Your task to perform on an android device: Go to Yahoo.com Image 0: 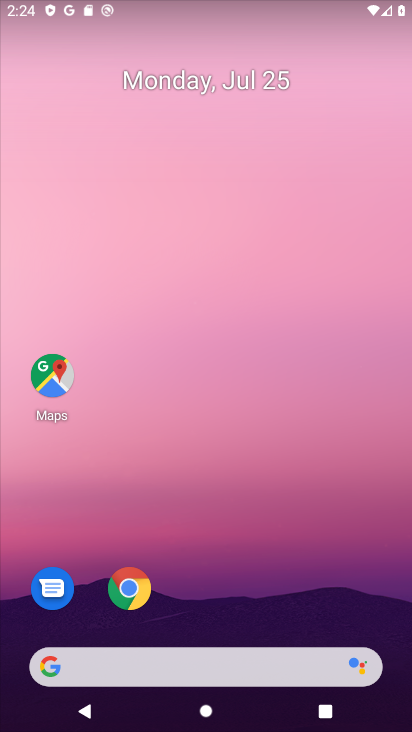
Step 0: press home button
Your task to perform on an android device: Go to Yahoo.com Image 1: 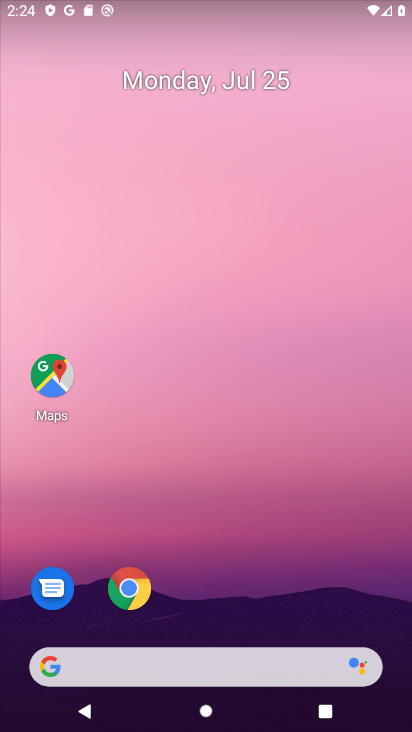
Step 1: click (126, 583)
Your task to perform on an android device: Go to Yahoo.com Image 2: 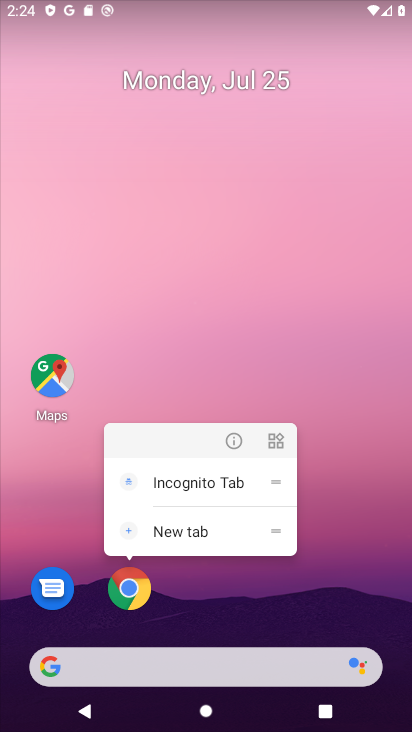
Step 2: click (271, 247)
Your task to perform on an android device: Go to Yahoo.com Image 3: 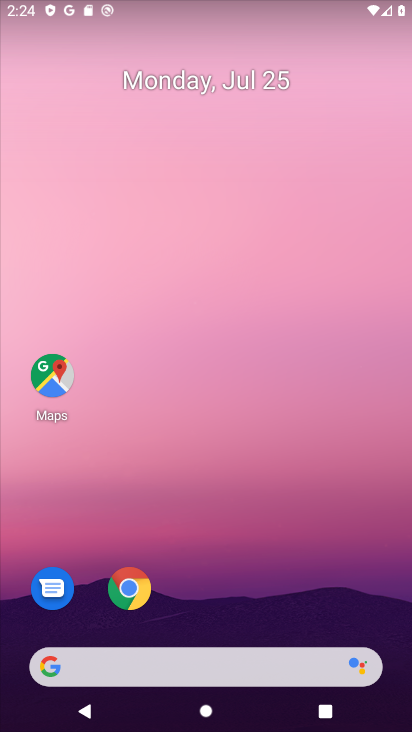
Step 3: click (129, 584)
Your task to perform on an android device: Go to Yahoo.com Image 4: 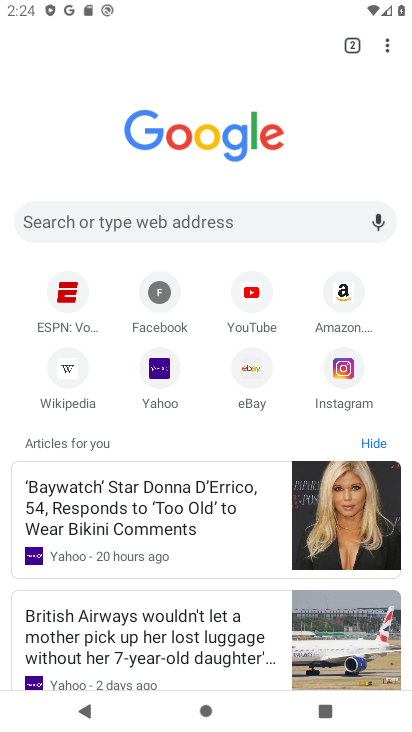
Step 4: click (160, 366)
Your task to perform on an android device: Go to Yahoo.com Image 5: 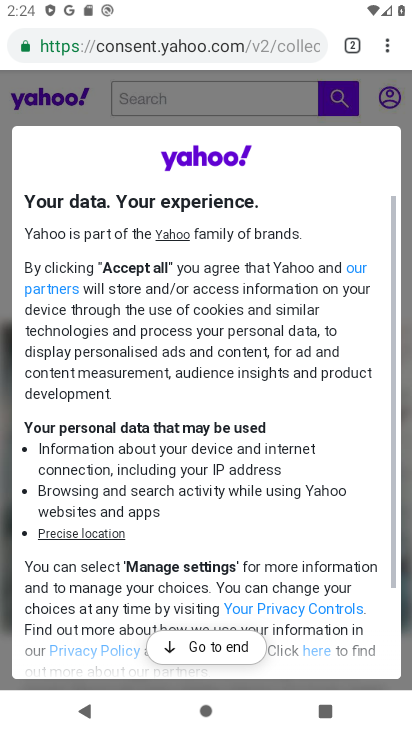
Step 5: drag from (190, 588) to (219, 83)
Your task to perform on an android device: Go to Yahoo.com Image 6: 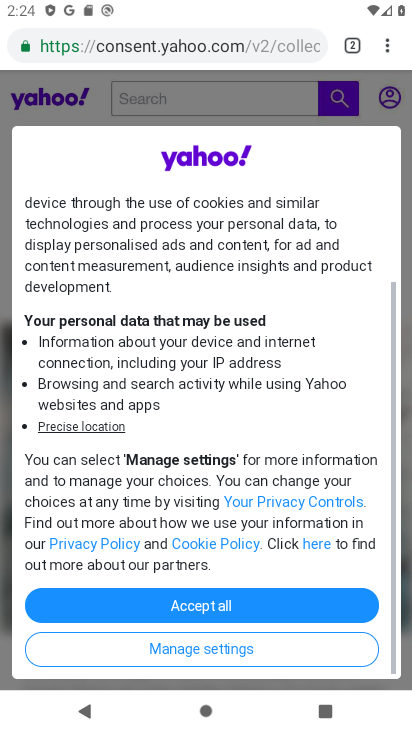
Step 6: click (213, 603)
Your task to perform on an android device: Go to Yahoo.com Image 7: 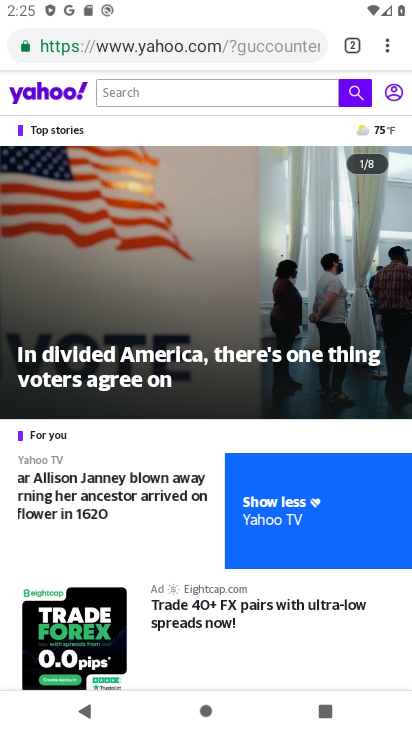
Step 7: task complete